Your task to perform on an android device: Open settings on Google Maps Image 0: 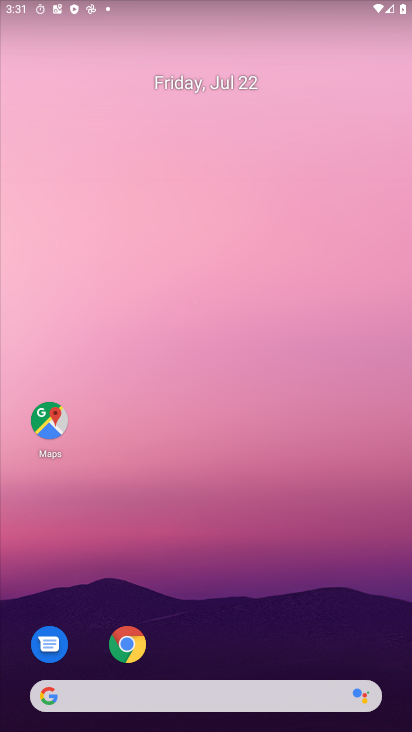
Step 0: drag from (233, 699) to (260, 181)
Your task to perform on an android device: Open settings on Google Maps Image 1: 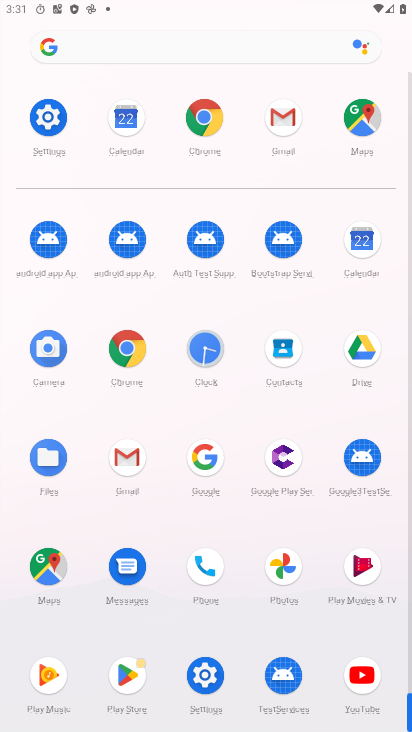
Step 1: click (368, 118)
Your task to perform on an android device: Open settings on Google Maps Image 2: 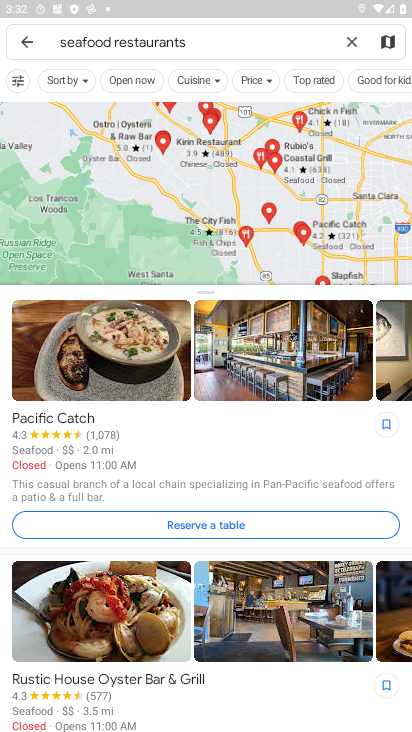
Step 2: click (34, 46)
Your task to perform on an android device: Open settings on Google Maps Image 3: 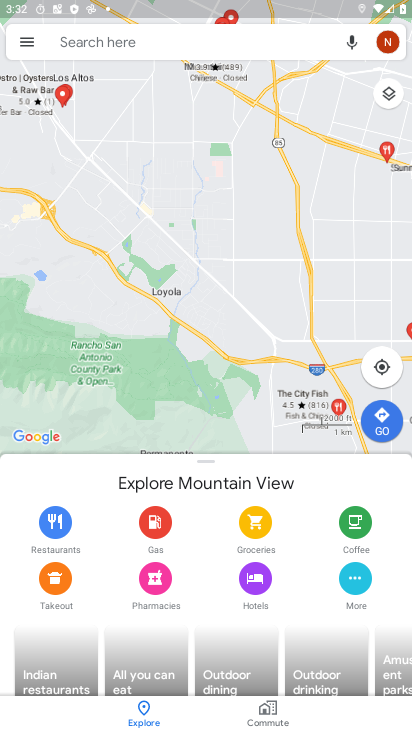
Step 3: click (34, 46)
Your task to perform on an android device: Open settings on Google Maps Image 4: 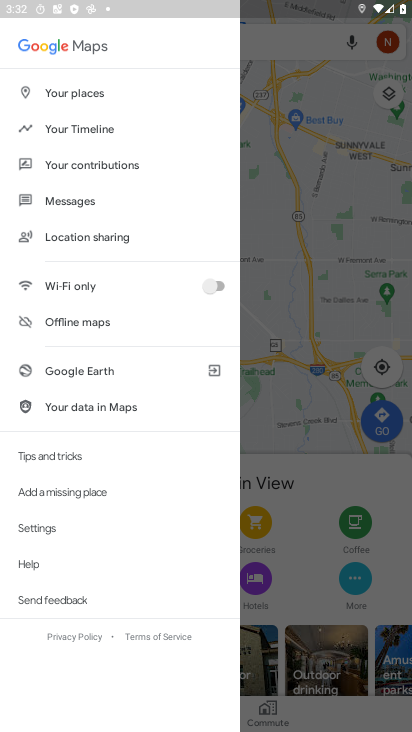
Step 4: click (45, 530)
Your task to perform on an android device: Open settings on Google Maps Image 5: 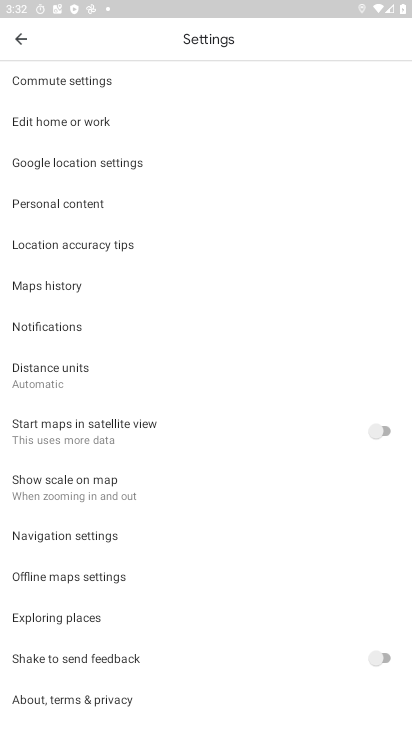
Step 5: task complete